Your task to perform on an android device: turn on sleep mode Image 0: 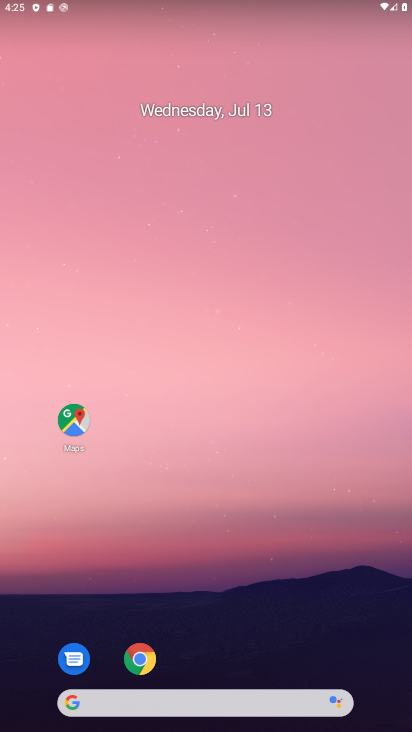
Step 0: drag from (291, 385) to (206, 0)
Your task to perform on an android device: turn on sleep mode Image 1: 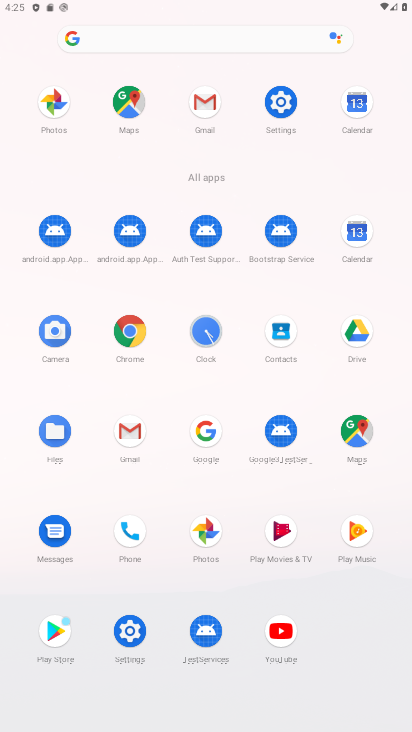
Step 1: click (281, 111)
Your task to perform on an android device: turn on sleep mode Image 2: 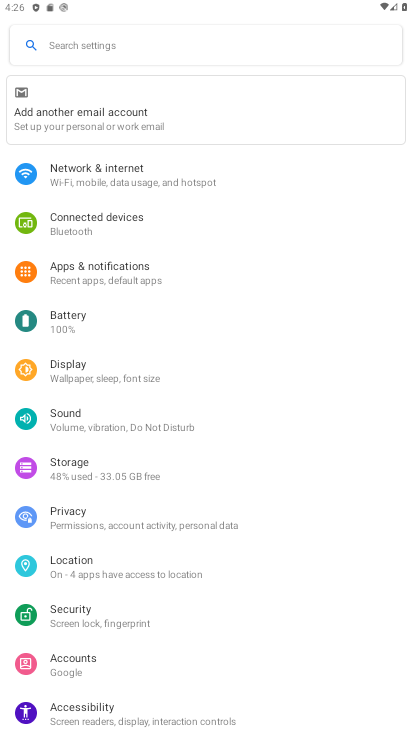
Step 2: click (67, 369)
Your task to perform on an android device: turn on sleep mode Image 3: 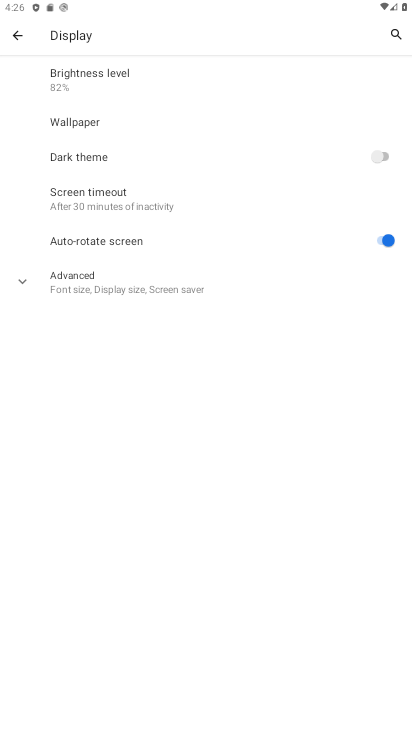
Step 3: click (114, 192)
Your task to perform on an android device: turn on sleep mode Image 4: 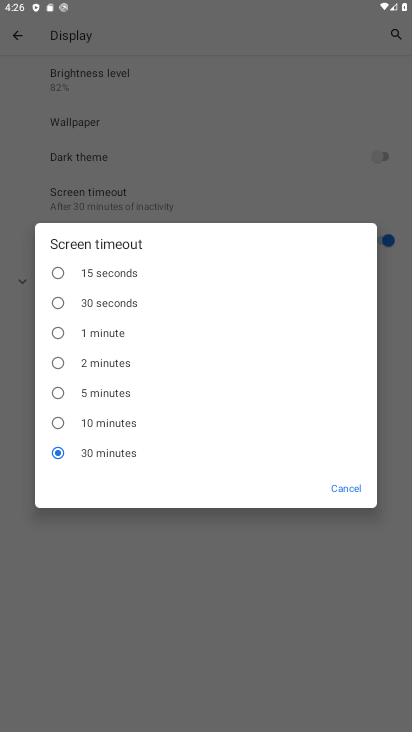
Step 4: task complete